Your task to perform on an android device: open app "McDonald's" (install if not already installed) and go to login screen Image 0: 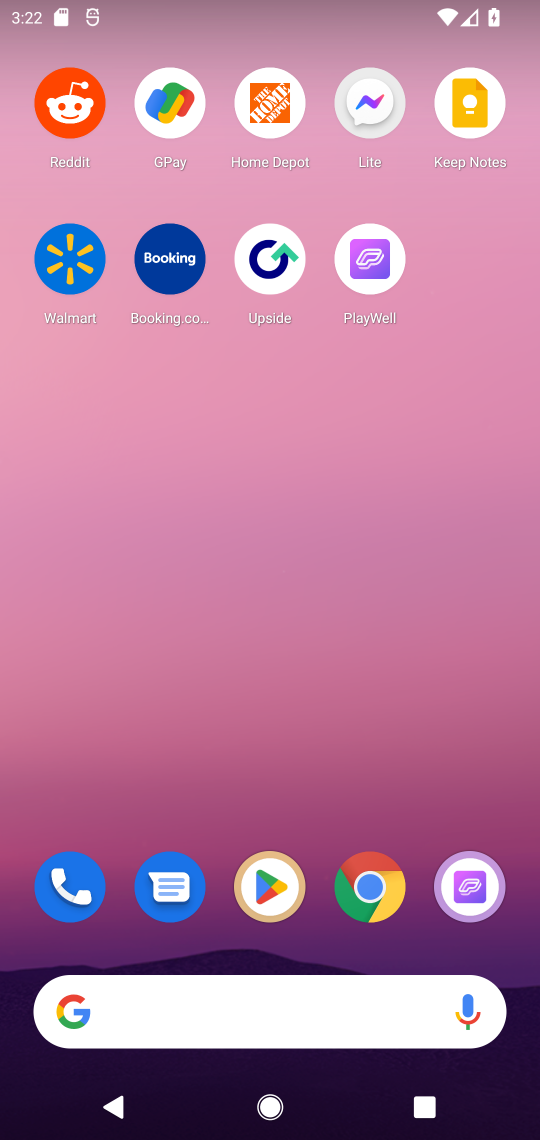
Step 0: click (257, 889)
Your task to perform on an android device: open app "McDonald's" (install if not already installed) and go to login screen Image 1: 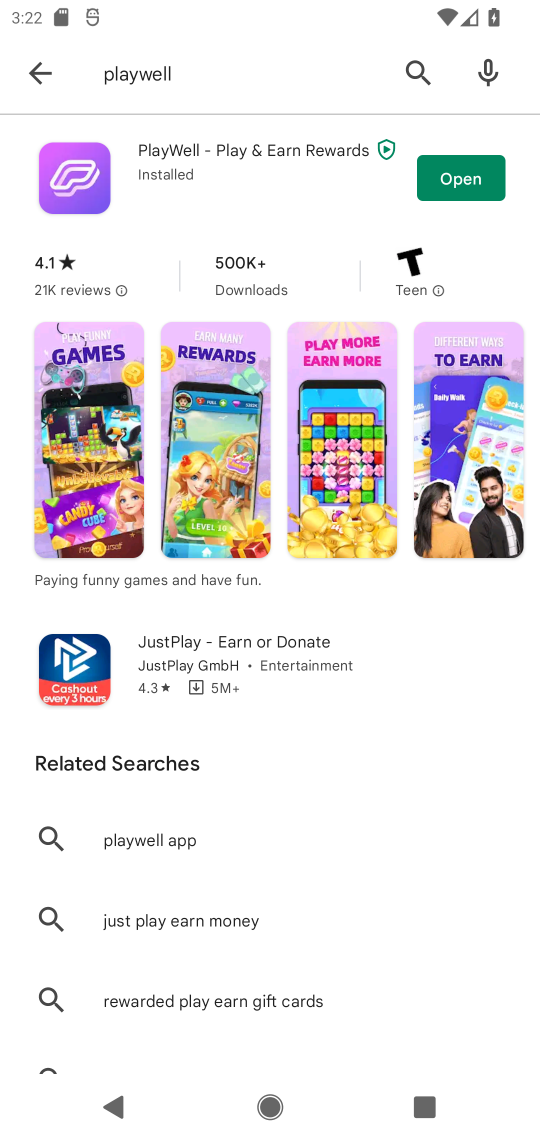
Step 1: click (35, 74)
Your task to perform on an android device: open app "McDonald's" (install if not already installed) and go to login screen Image 2: 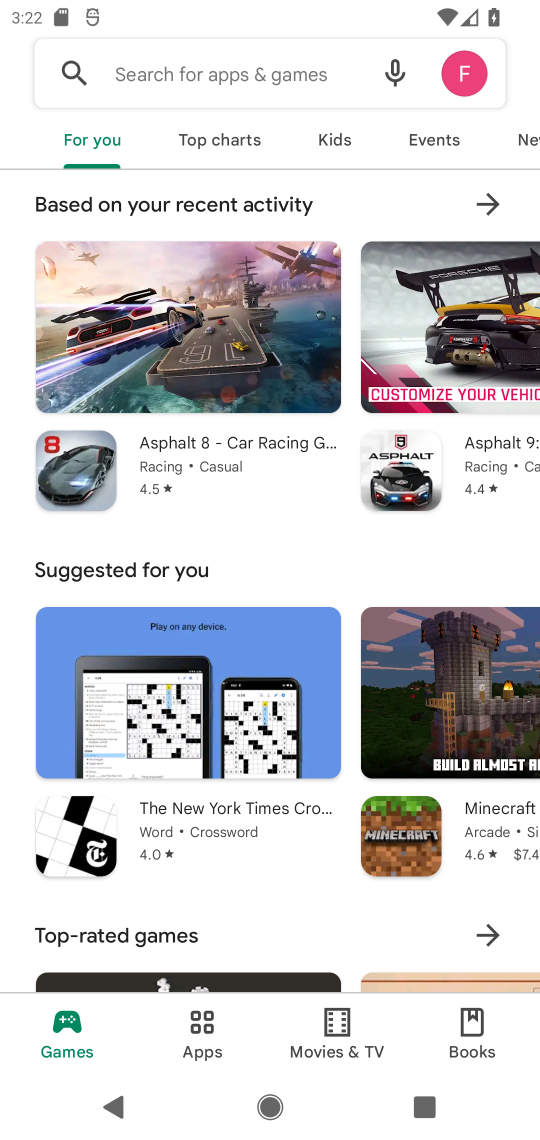
Step 2: click (180, 69)
Your task to perform on an android device: open app "McDonald's" (install if not already installed) and go to login screen Image 3: 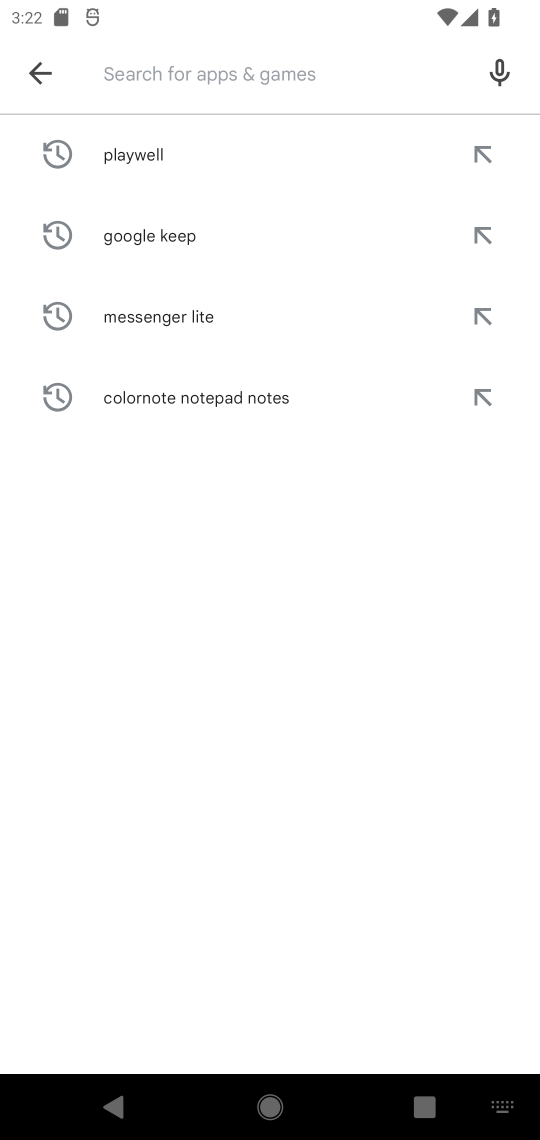
Step 3: type "McDonald's"
Your task to perform on an android device: open app "McDonald's" (install if not already installed) and go to login screen Image 4: 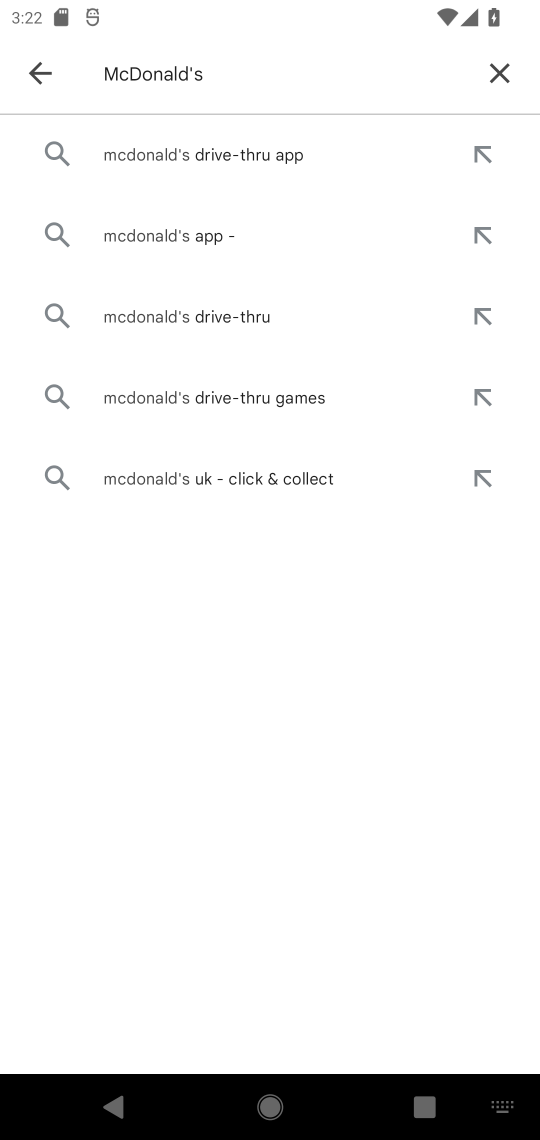
Step 4: click (187, 154)
Your task to perform on an android device: open app "McDonald's" (install if not already installed) and go to login screen Image 5: 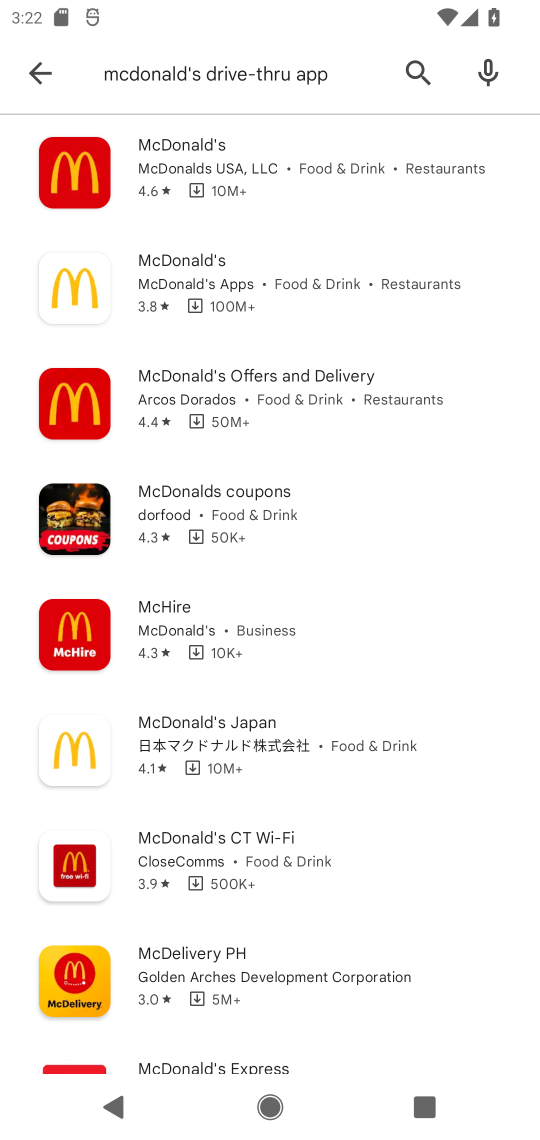
Step 5: click (171, 276)
Your task to perform on an android device: open app "McDonald's" (install if not already installed) and go to login screen Image 6: 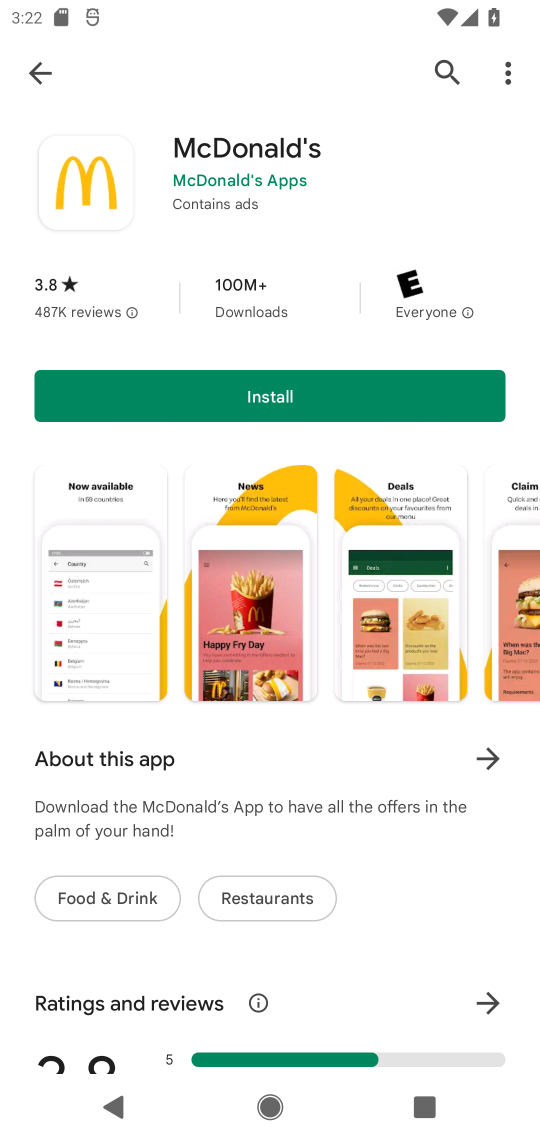
Step 6: click (264, 383)
Your task to perform on an android device: open app "McDonald's" (install if not already installed) and go to login screen Image 7: 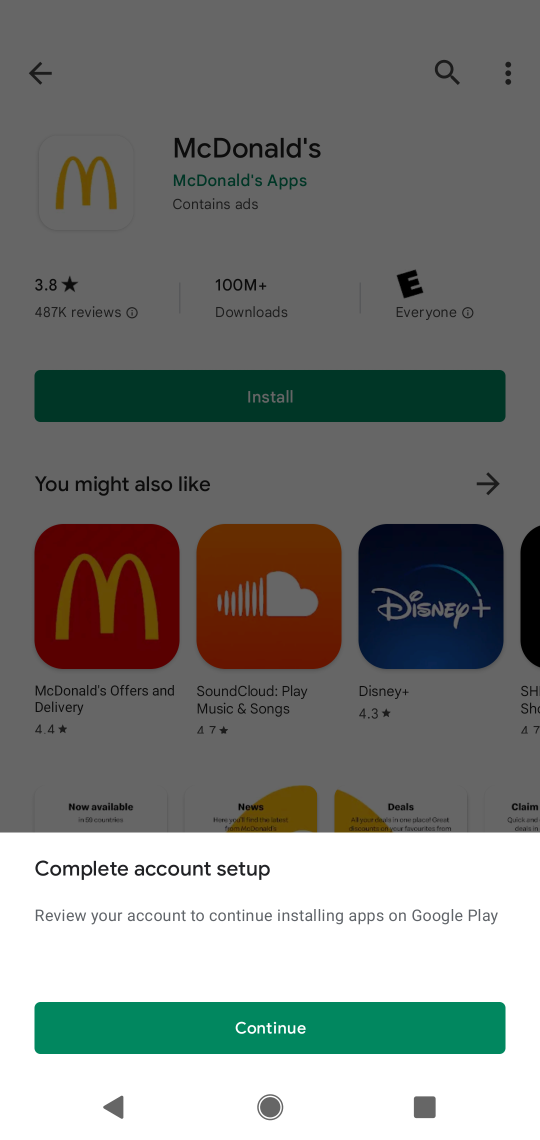
Step 7: click (282, 1012)
Your task to perform on an android device: open app "McDonald's" (install if not already installed) and go to login screen Image 8: 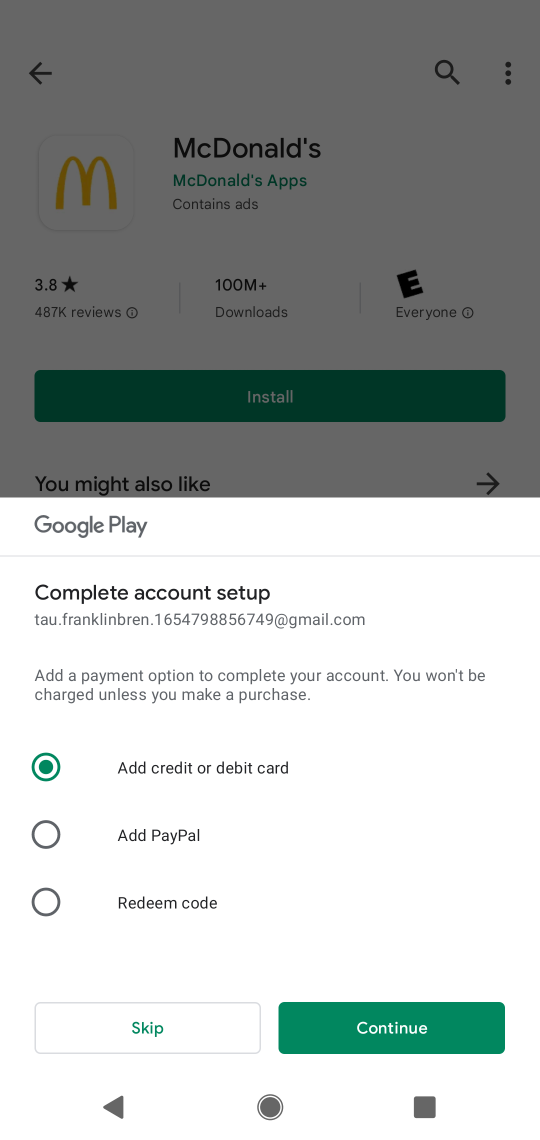
Step 8: click (157, 1020)
Your task to perform on an android device: open app "McDonald's" (install if not already installed) and go to login screen Image 9: 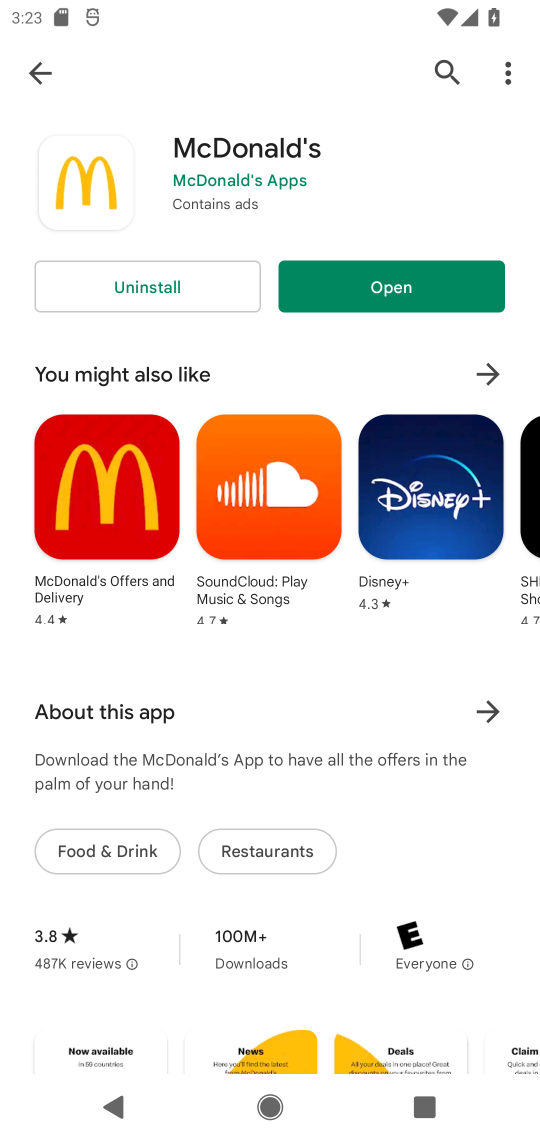
Step 9: click (401, 276)
Your task to perform on an android device: open app "McDonald's" (install if not already installed) and go to login screen Image 10: 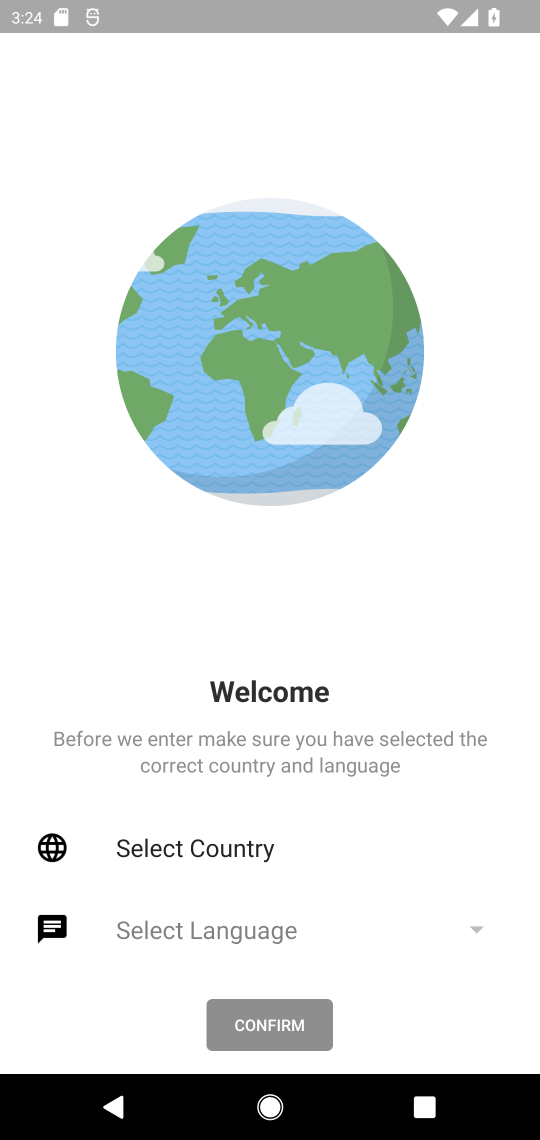
Step 10: click (278, 1018)
Your task to perform on an android device: open app "McDonald's" (install if not already installed) and go to login screen Image 11: 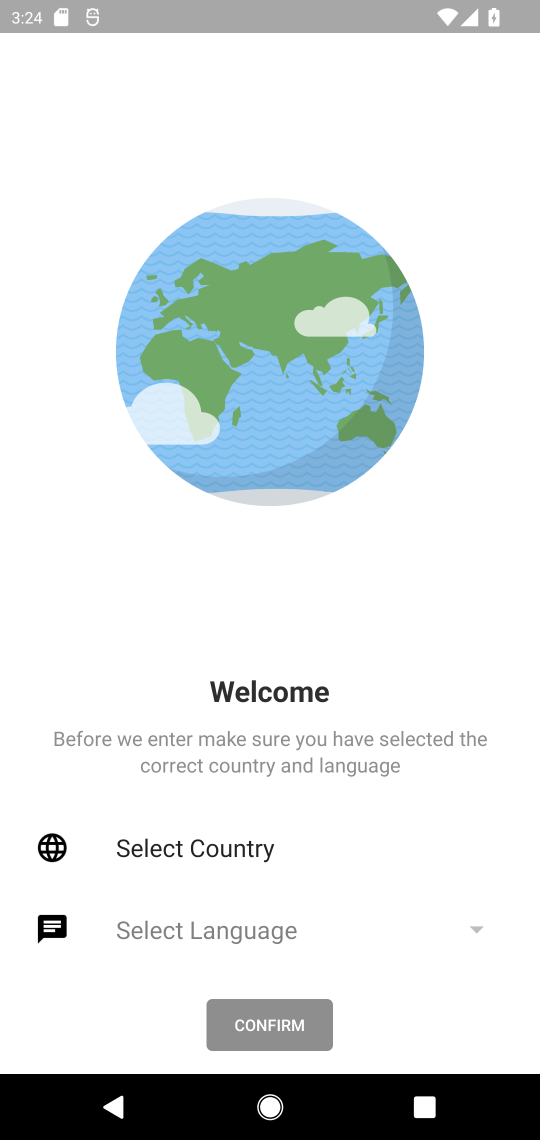
Step 11: task complete